Your task to perform on an android device: open a new tab in the chrome app Image 0: 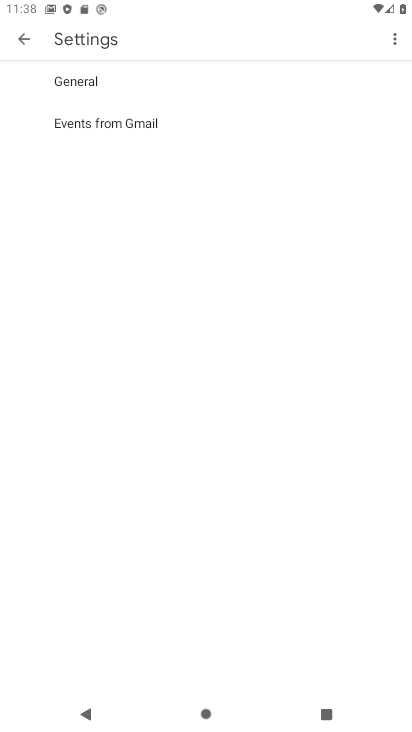
Step 0: press home button
Your task to perform on an android device: open a new tab in the chrome app Image 1: 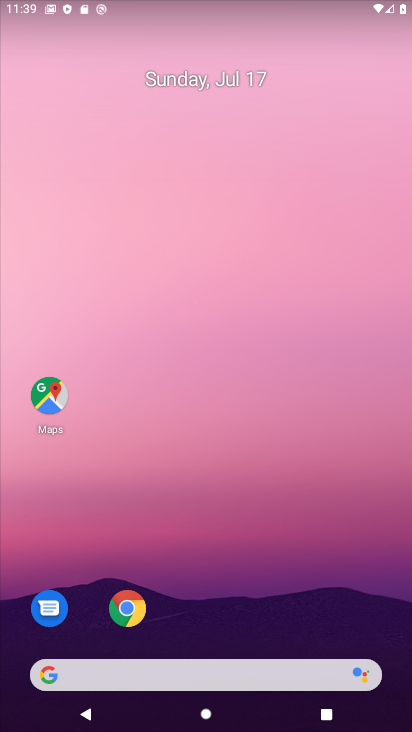
Step 1: drag from (276, 648) to (316, 100)
Your task to perform on an android device: open a new tab in the chrome app Image 2: 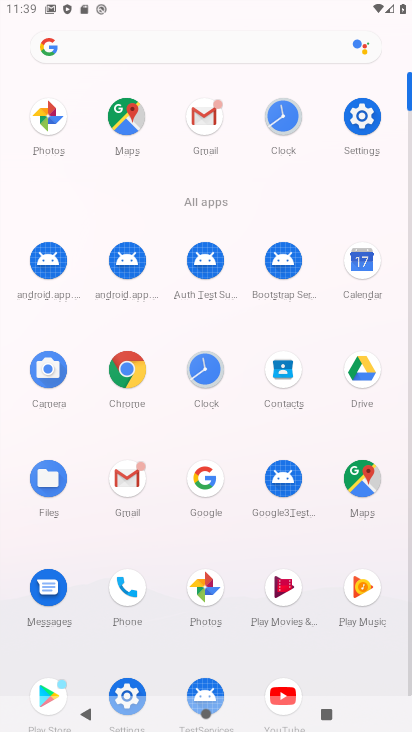
Step 2: click (127, 374)
Your task to perform on an android device: open a new tab in the chrome app Image 3: 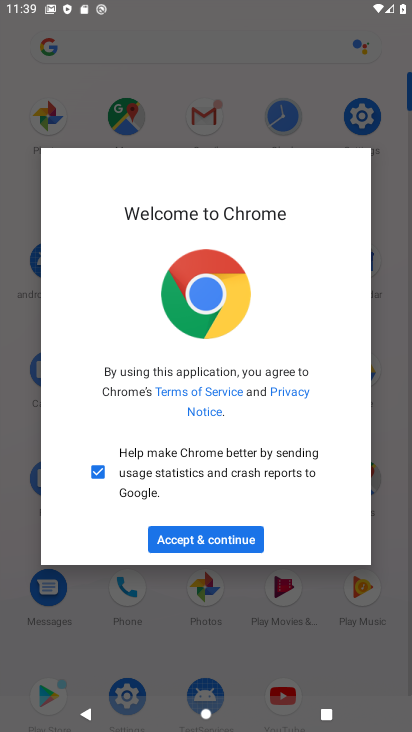
Step 3: click (203, 544)
Your task to perform on an android device: open a new tab in the chrome app Image 4: 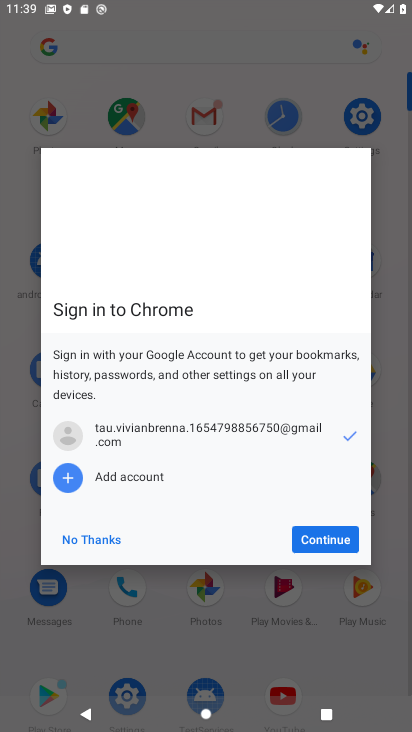
Step 4: click (303, 541)
Your task to perform on an android device: open a new tab in the chrome app Image 5: 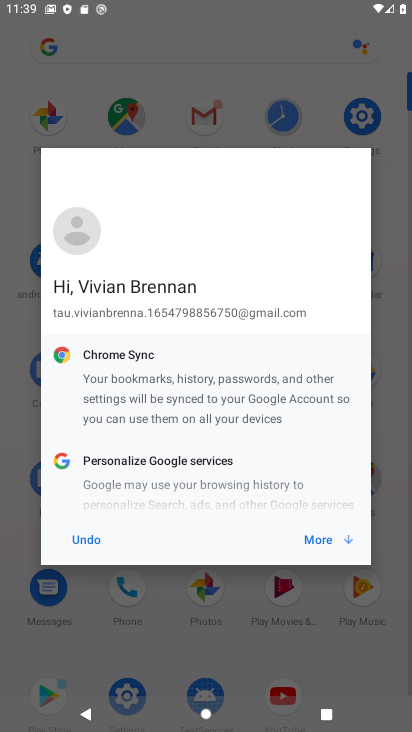
Step 5: click (303, 541)
Your task to perform on an android device: open a new tab in the chrome app Image 6: 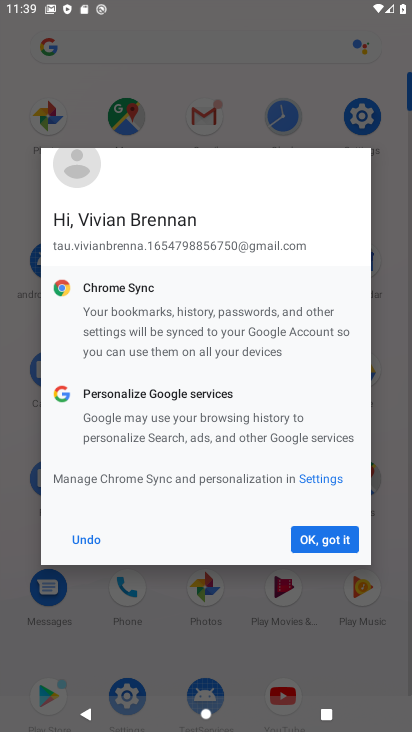
Step 6: click (303, 541)
Your task to perform on an android device: open a new tab in the chrome app Image 7: 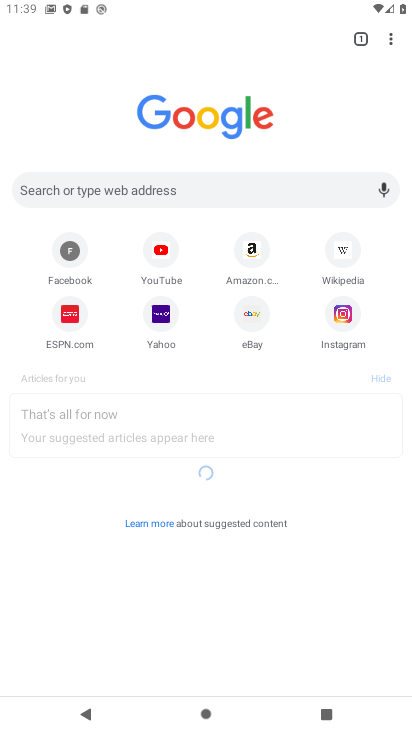
Step 7: task complete